Your task to perform on an android device: Open ESPN.com Image 0: 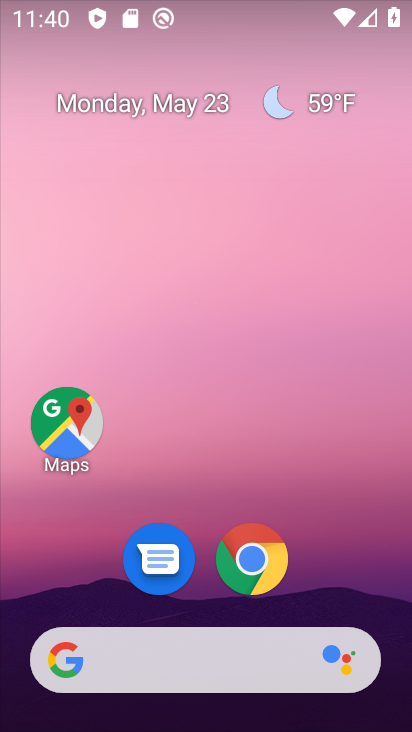
Step 0: drag from (389, 657) to (289, 141)
Your task to perform on an android device: Open ESPN.com Image 1: 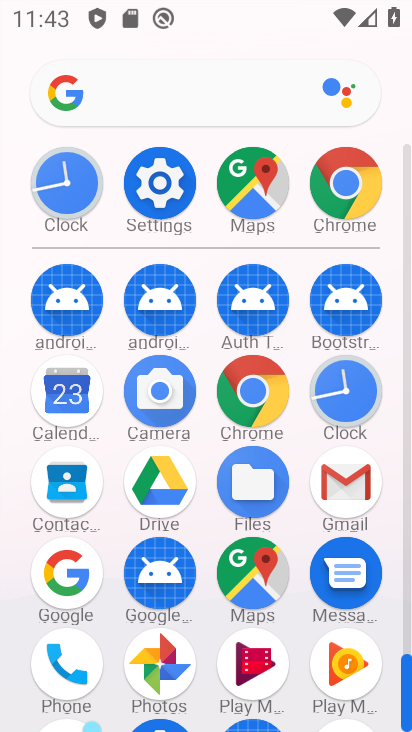
Step 1: click (49, 577)
Your task to perform on an android device: Open ESPN.com Image 2: 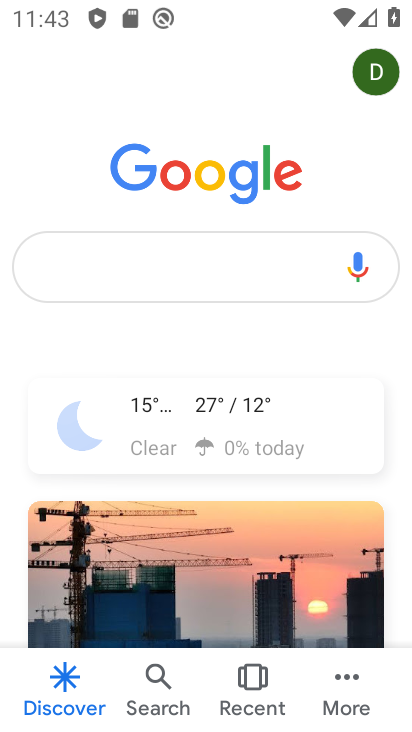
Step 2: click (164, 278)
Your task to perform on an android device: Open ESPN.com Image 3: 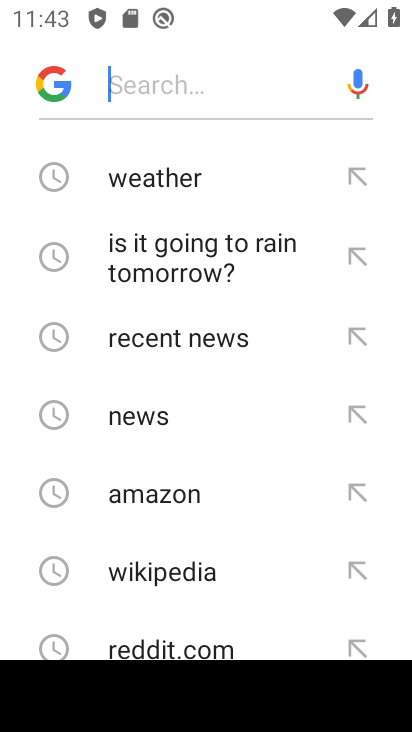
Step 3: drag from (174, 606) to (235, 162)
Your task to perform on an android device: Open ESPN.com Image 4: 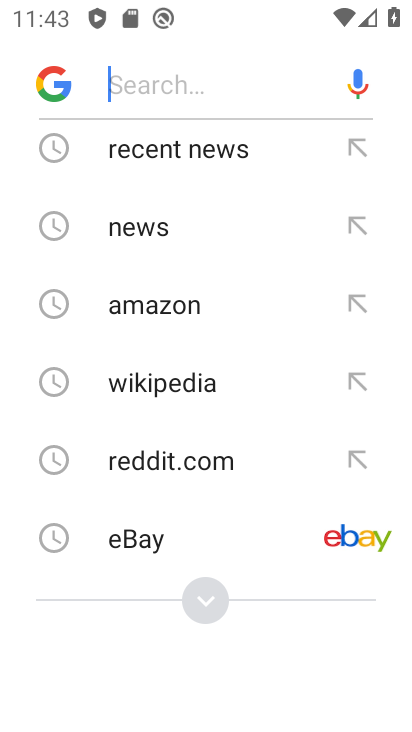
Step 4: click (211, 616)
Your task to perform on an android device: Open ESPN.com Image 5: 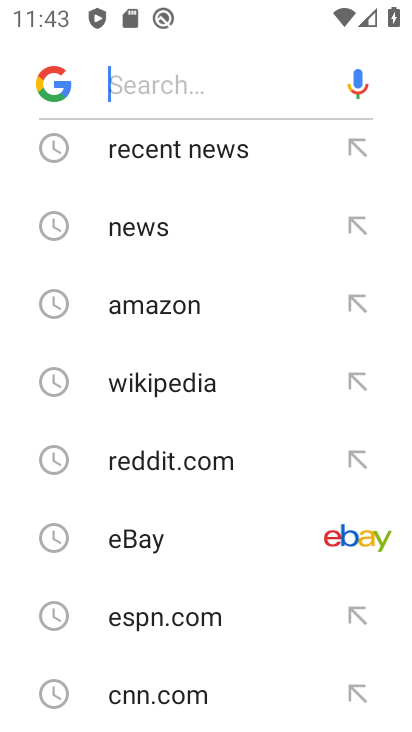
Step 5: click (169, 630)
Your task to perform on an android device: Open ESPN.com Image 6: 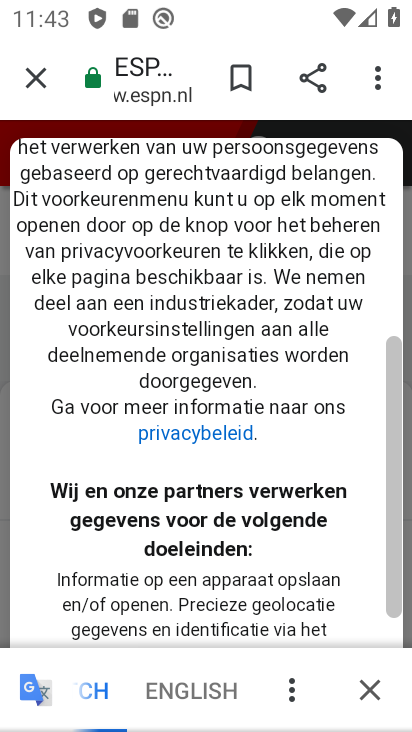
Step 6: task complete